Your task to perform on an android device: check out phone information Image 0: 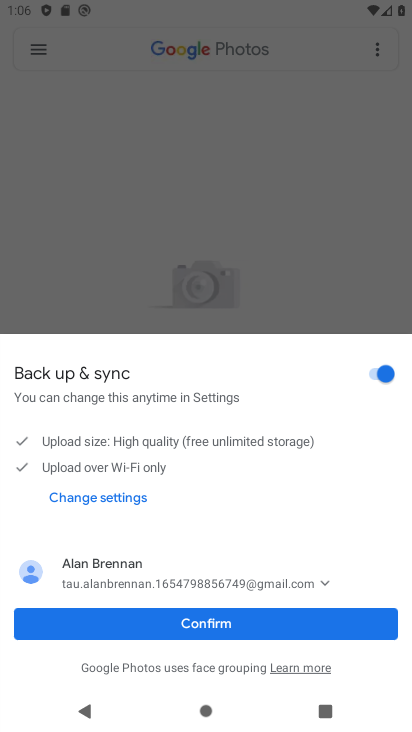
Step 0: click (240, 633)
Your task to perform on an android device: check out phone information Image 1: 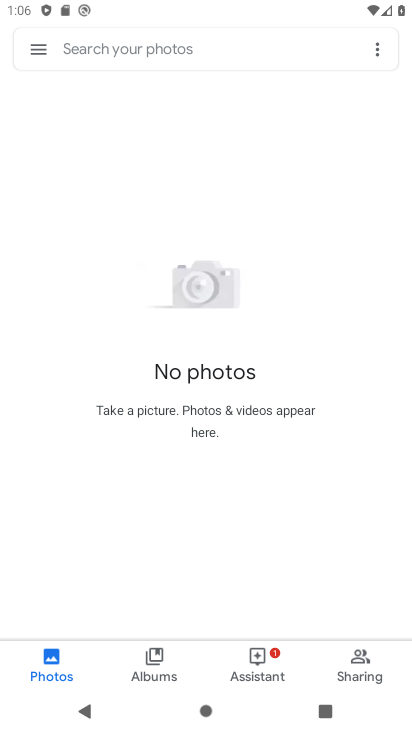
Step 1: press home button
Your task to perform on an android device: check out phone information Image 2: 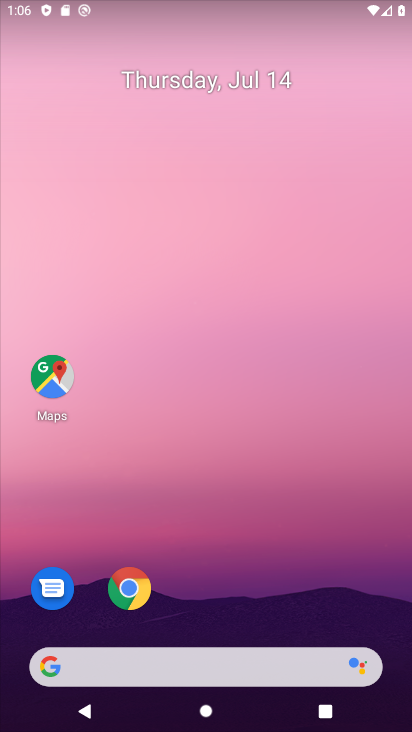
Step 2: drag from (257, 718) to (271, 287)
Your task to perform on an android device: check out phone information Image 3: 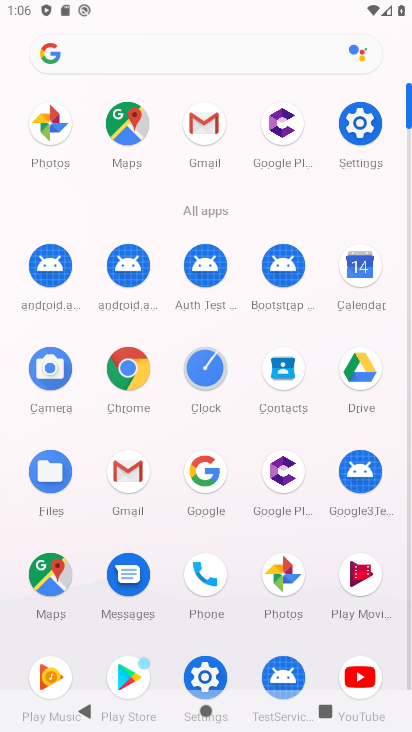
Step 3: click (368, 133)
Your task to perform on an android device: check out phone information Image 4: 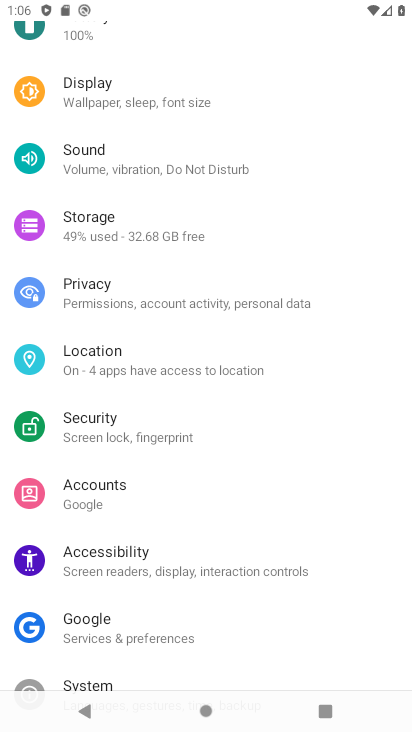
Step 4: drag from (207, 651) to (218, 4)
Your task to perform on an android device: check out phone information Image 5: 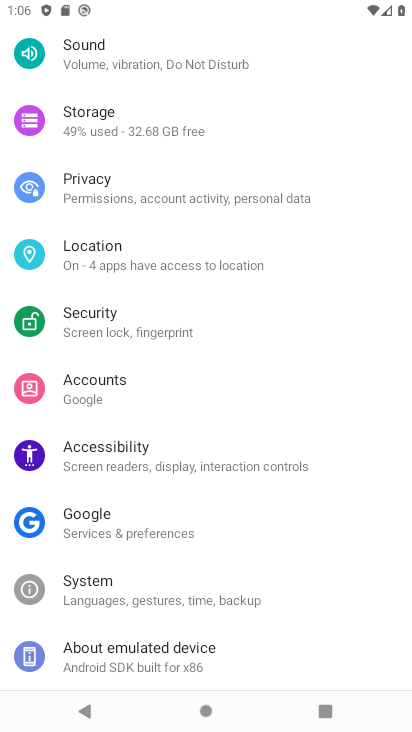
Step 5: click (185, 659)
Your task to perform on an android device: check out phone information Image 6: 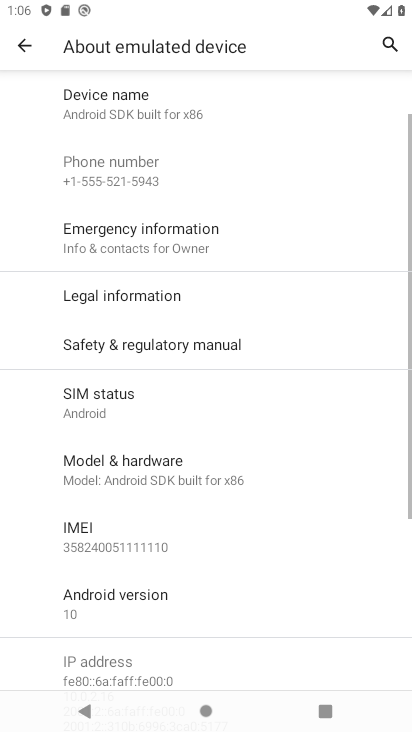
Step 6: task complete